Your task to perform on an android device: uninstall "DuckDuckGo Privacy Browser" Image 0: 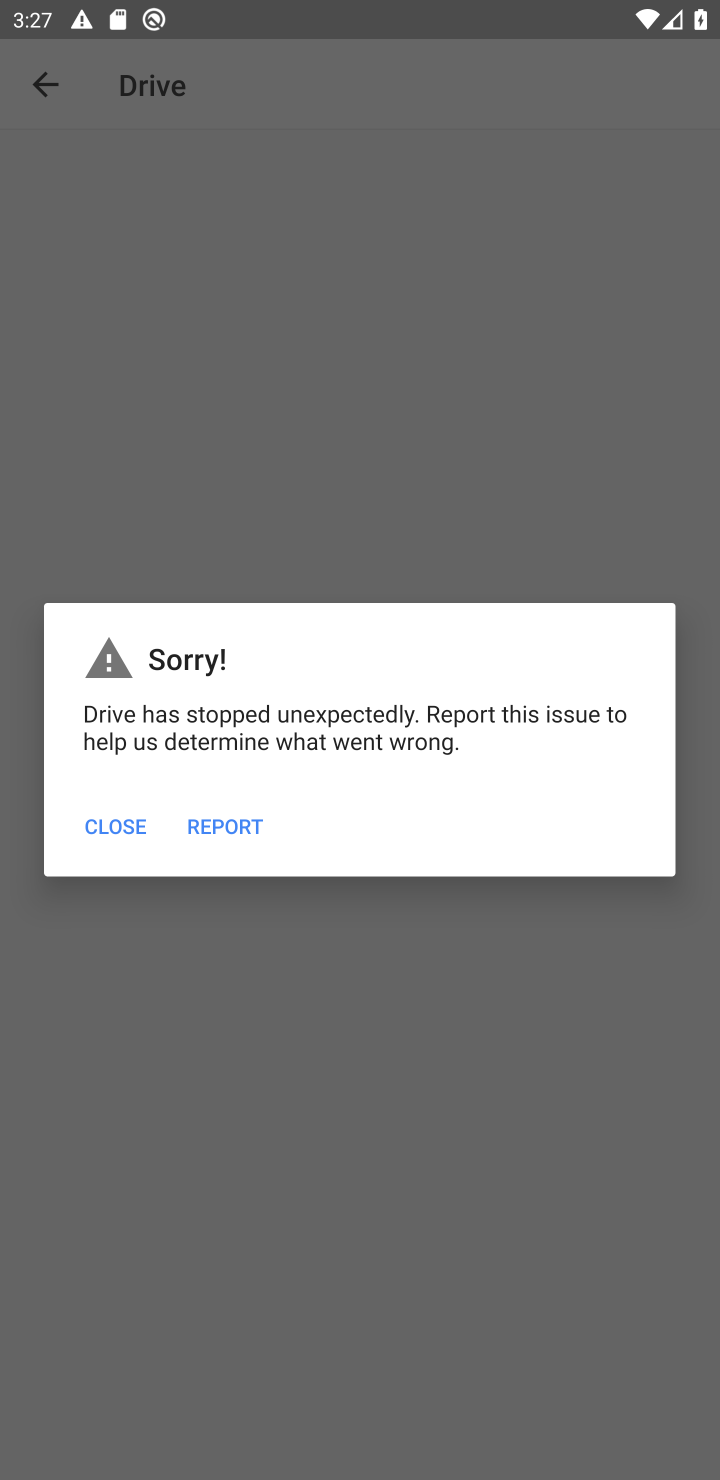
Step 0: press home button
Your task to perform on an android device: uninstall "DuckDuckGo Privacy Browser" Image 1: 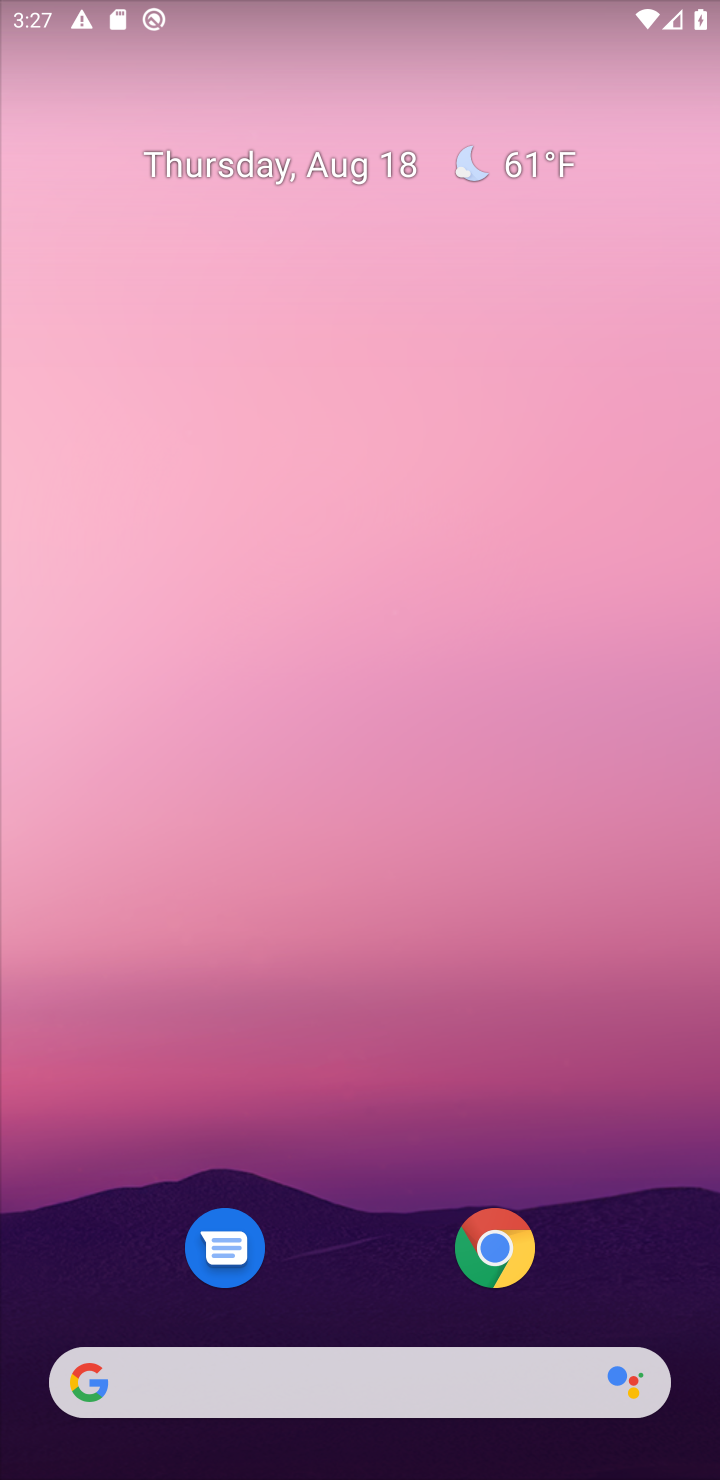
Step 1: drag from (350, 1036) to (345, 117)
Your task to perform on an android device: uninstall "DuckDuckGo Privacy Browser" Image 2: 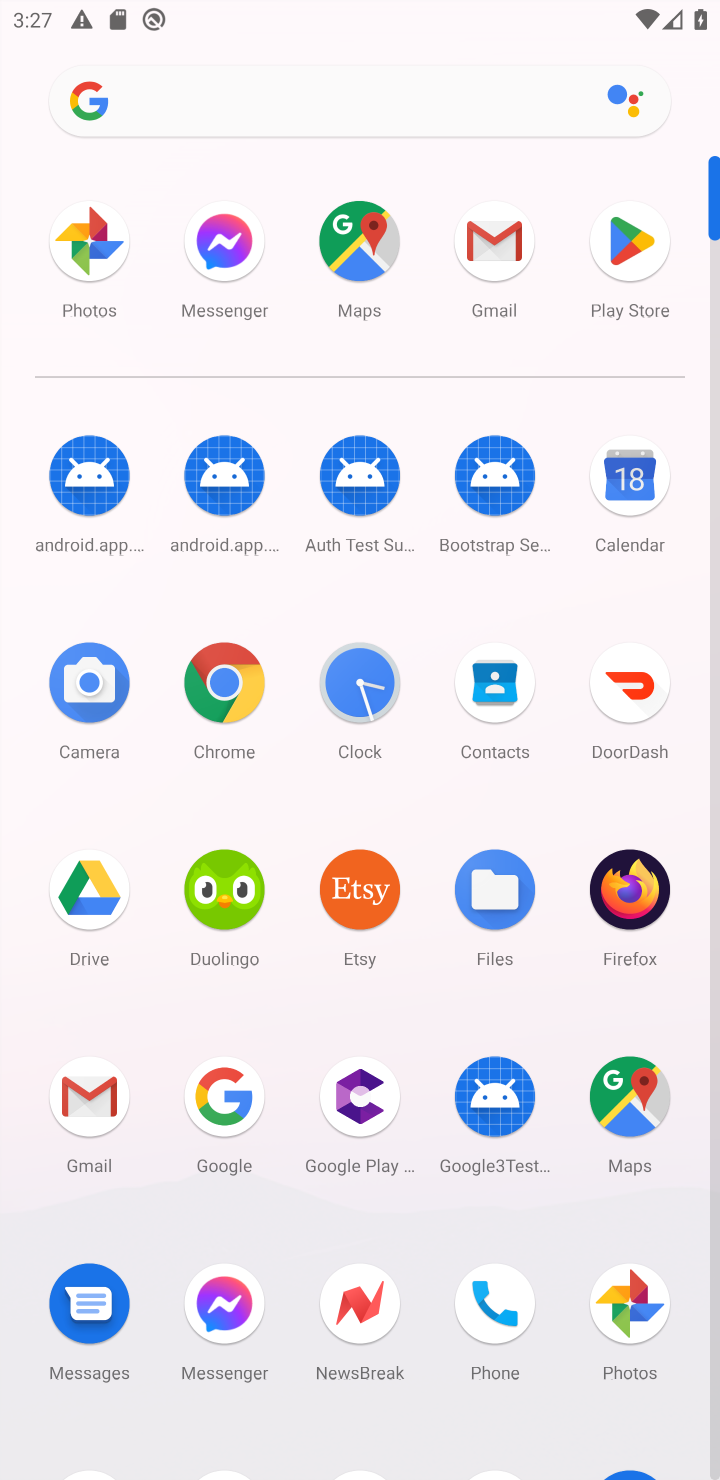
Step 2: click (619, 236)
Your task to perform on an android device: uninstall "DuckDuckGo Privacy Browser" Image 3: 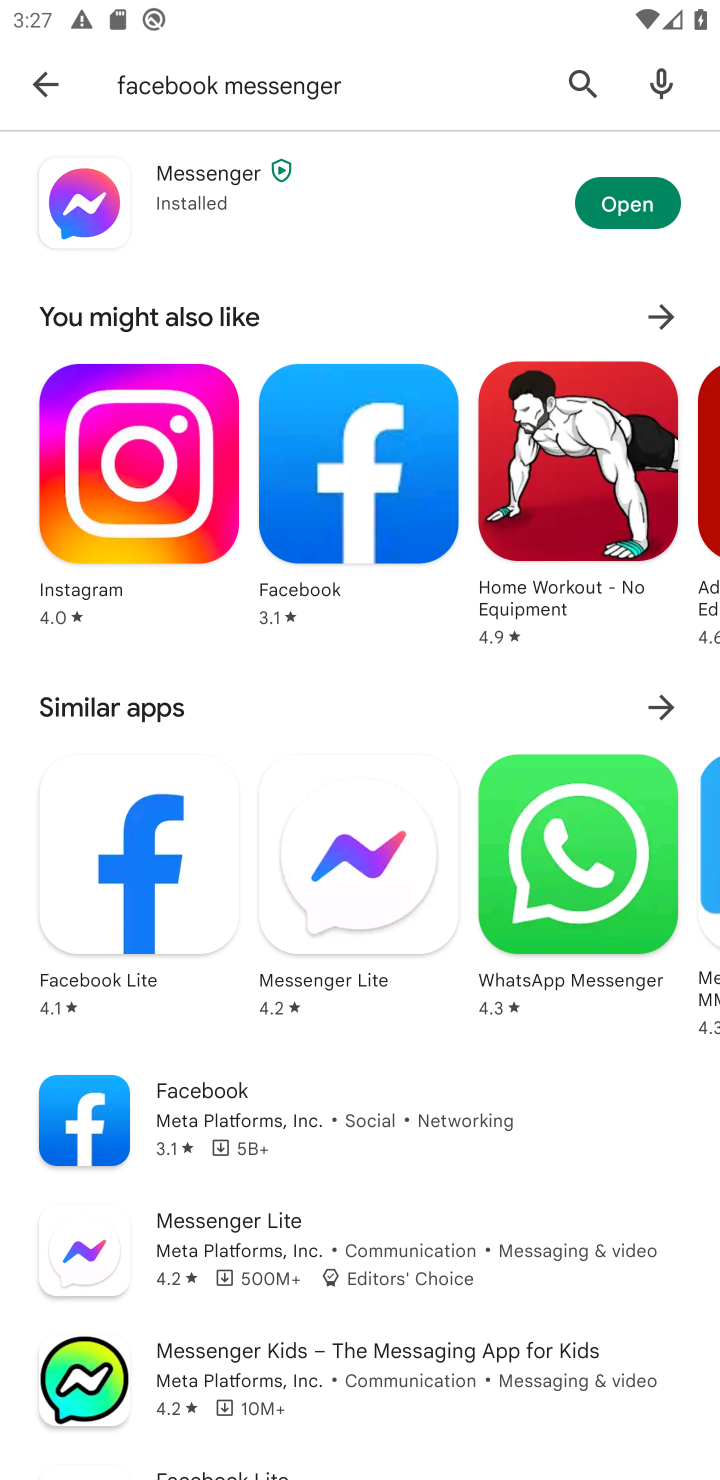
Step 3: click (578, 77)
Your task to perform on an android device: uninstall "DuckDuckGo Privacy Browser" Image 4: 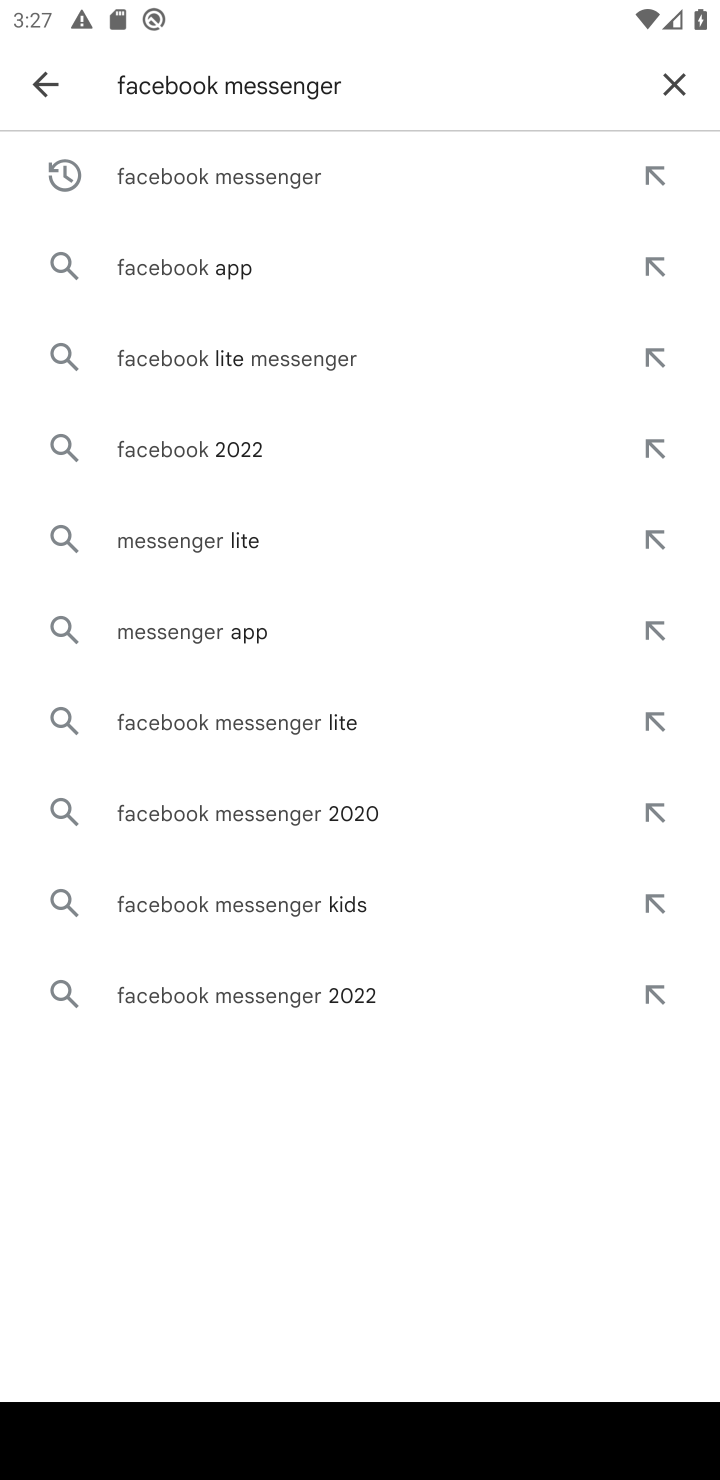
Step 4: click (670, 79)
Your task to perform on an android device: uninstall "DuckDuckGo Privacy Browser" Image 5: 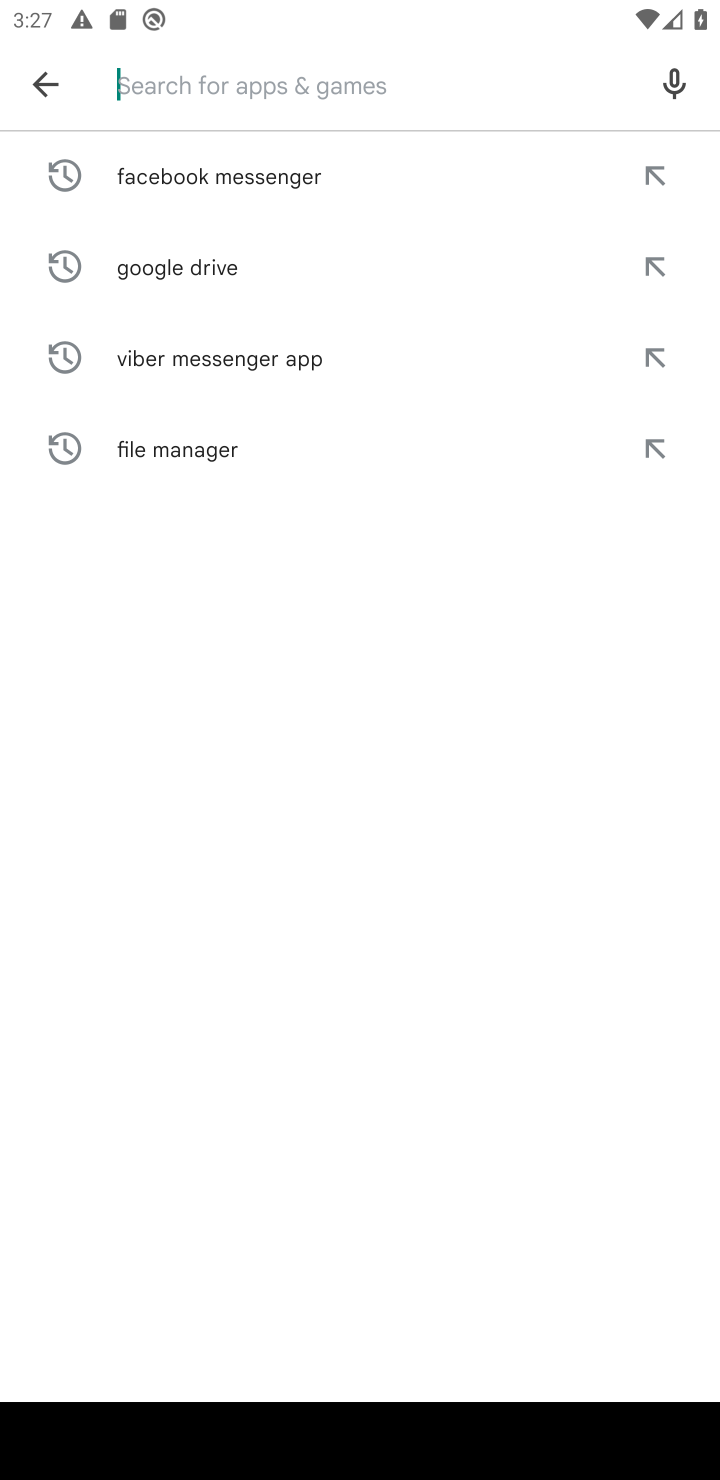
Step 5: type "DuckDuckGo Privacy Browser"
Your task to perform on an android device: uninstall "DuckDuckGo Privacy Browser" Image 6: 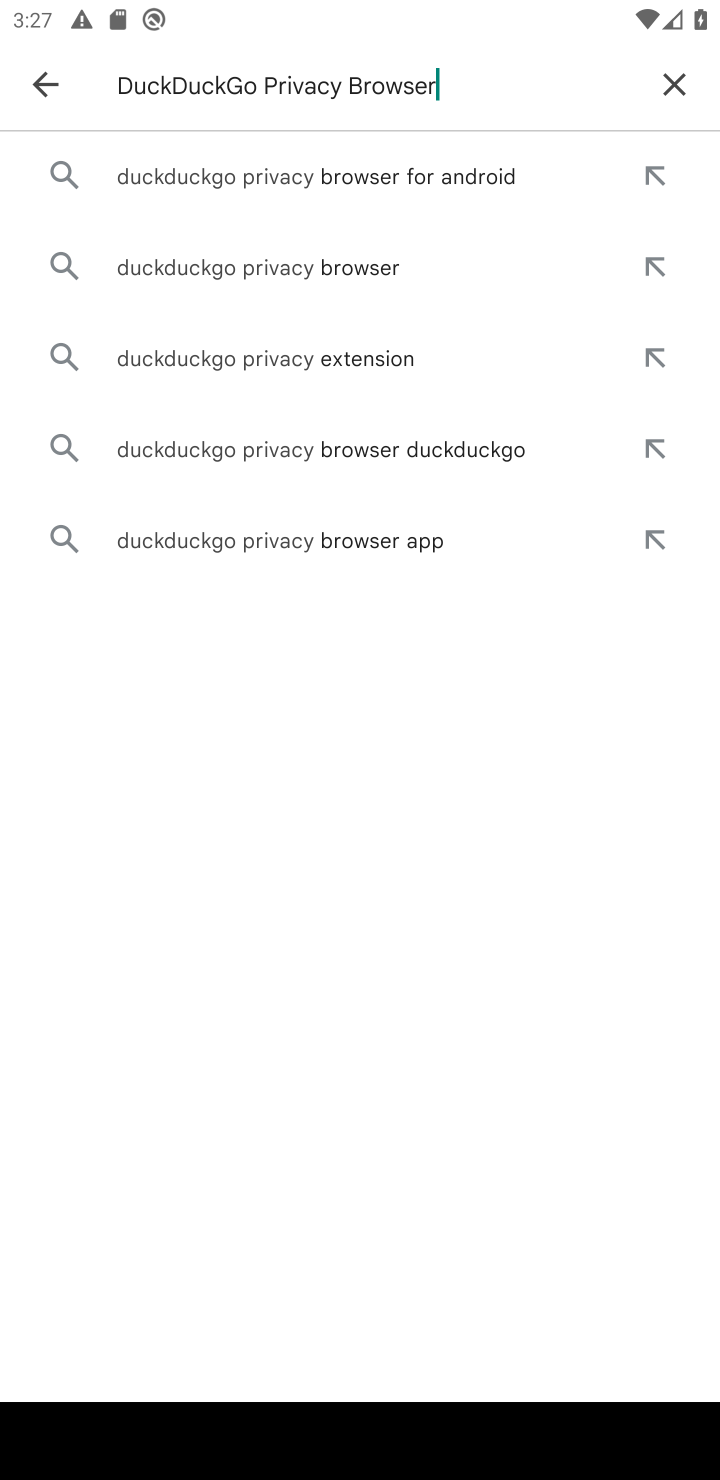
Step 6: type ""
Your task to perform on an android device: uninstall "DuckDuckGo Privacy Browser" Image 7: 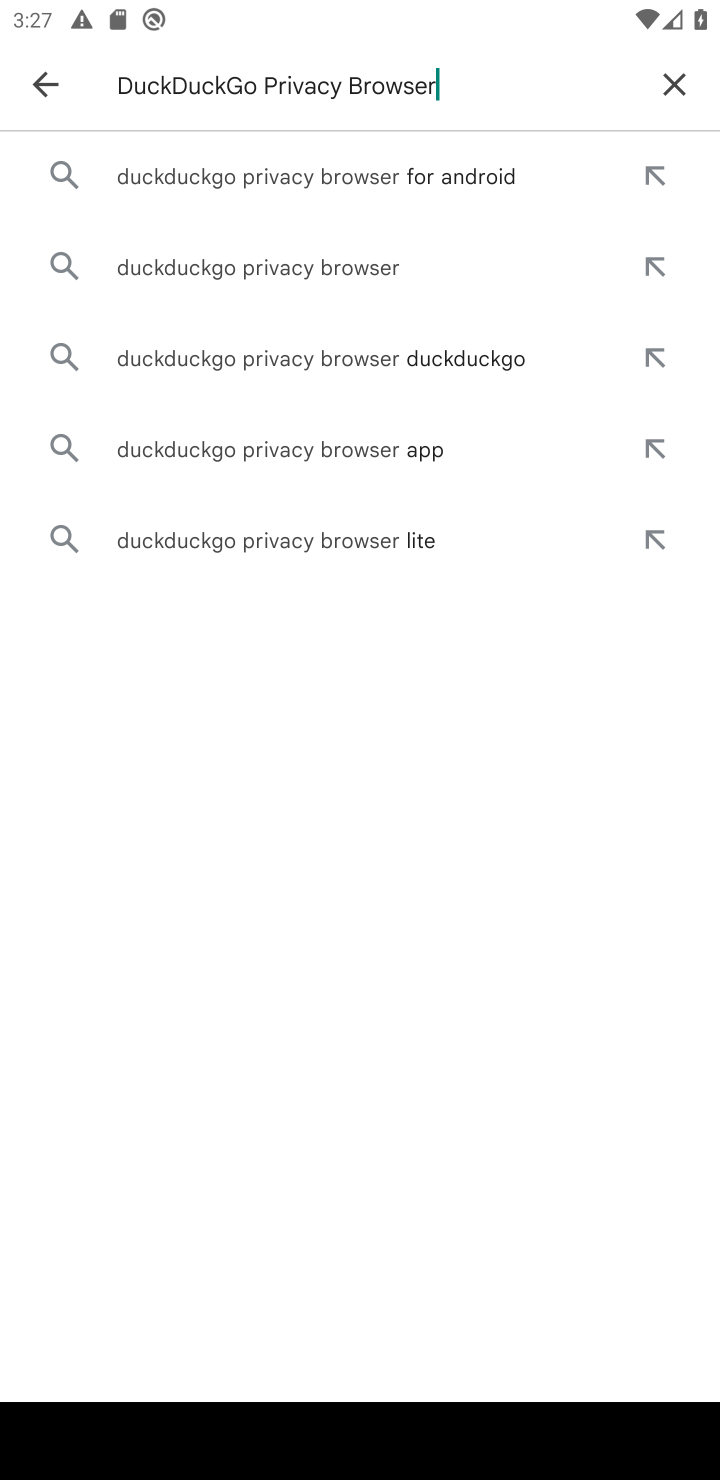
Step 7: click (281, 259)
Your task to perform on an android device: uninstall "DuckDuckGo Privacy Browser" Image 8: 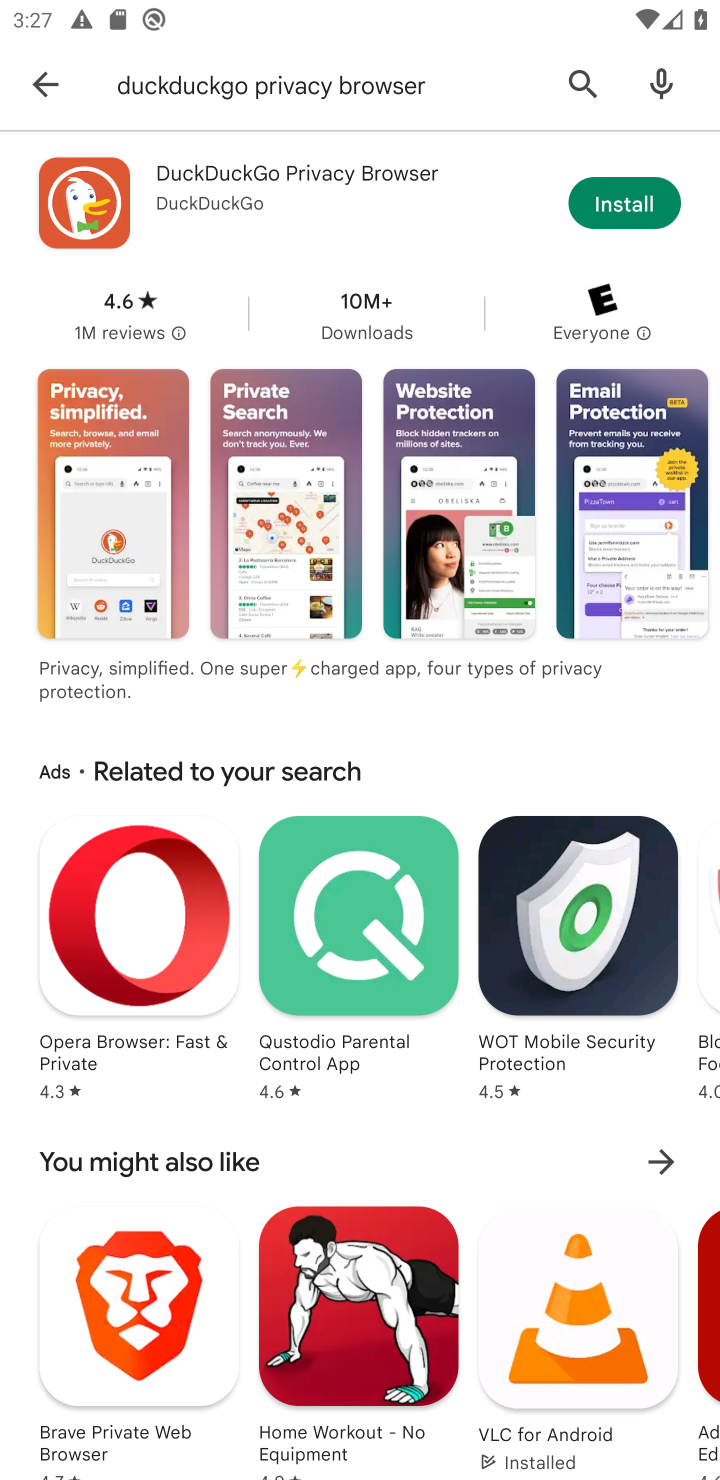
Step 8: click (226, 177)
Your task to perform on an android device: uninstall "DuckDuckGo Privacy Browser" Image 9: 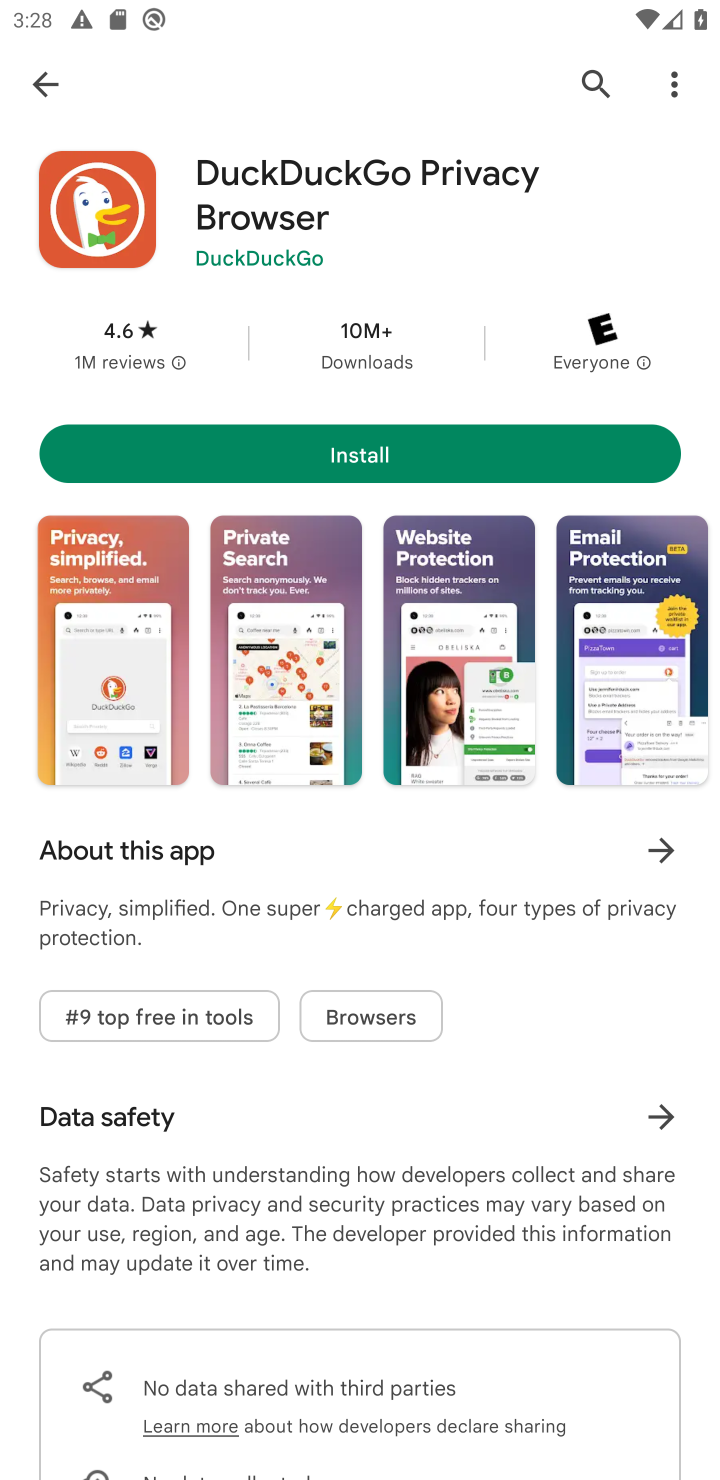
Step 9: task complete